Your task to perform on an android device: install app "Life360: Find Family & Friends" Image 0: 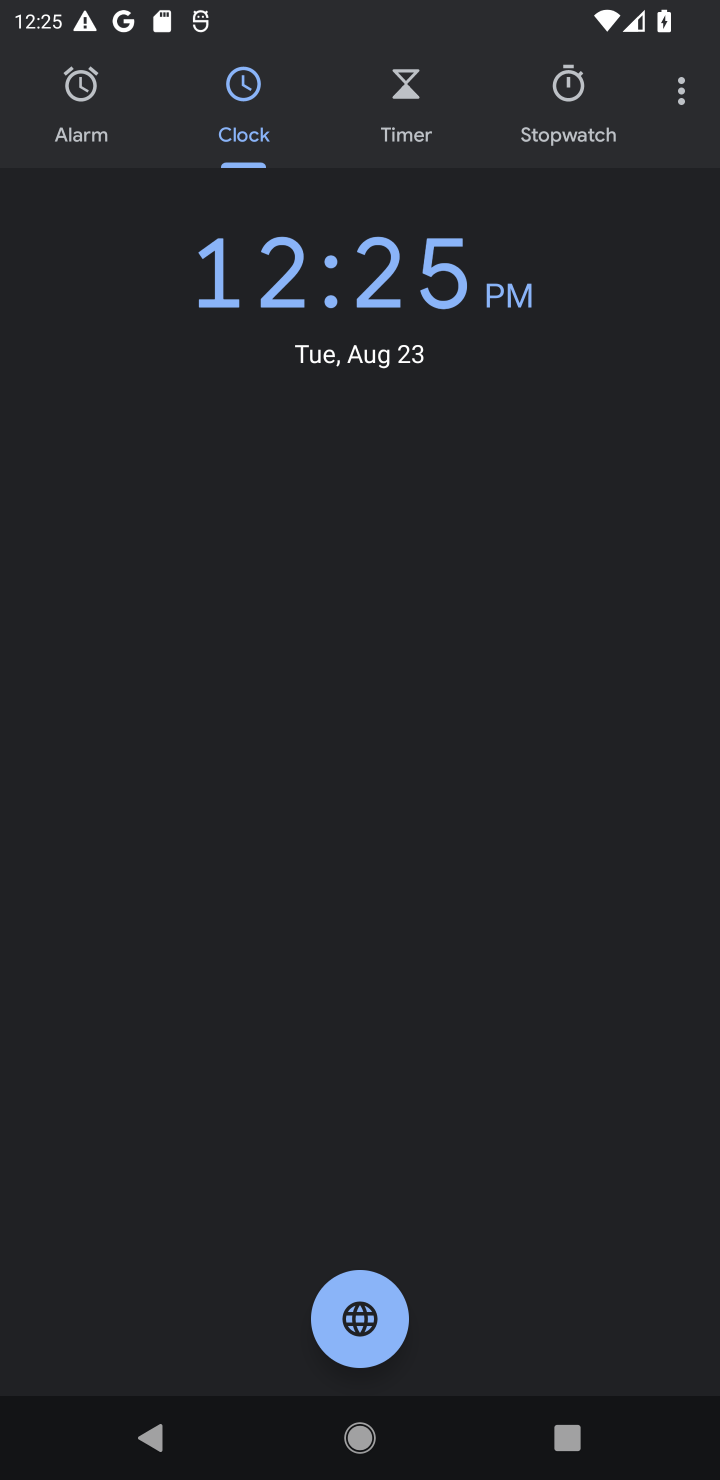
Step 0: press home button
Your task to perform on an android device: install app "Life360: Find Family & Friends" Image 1: 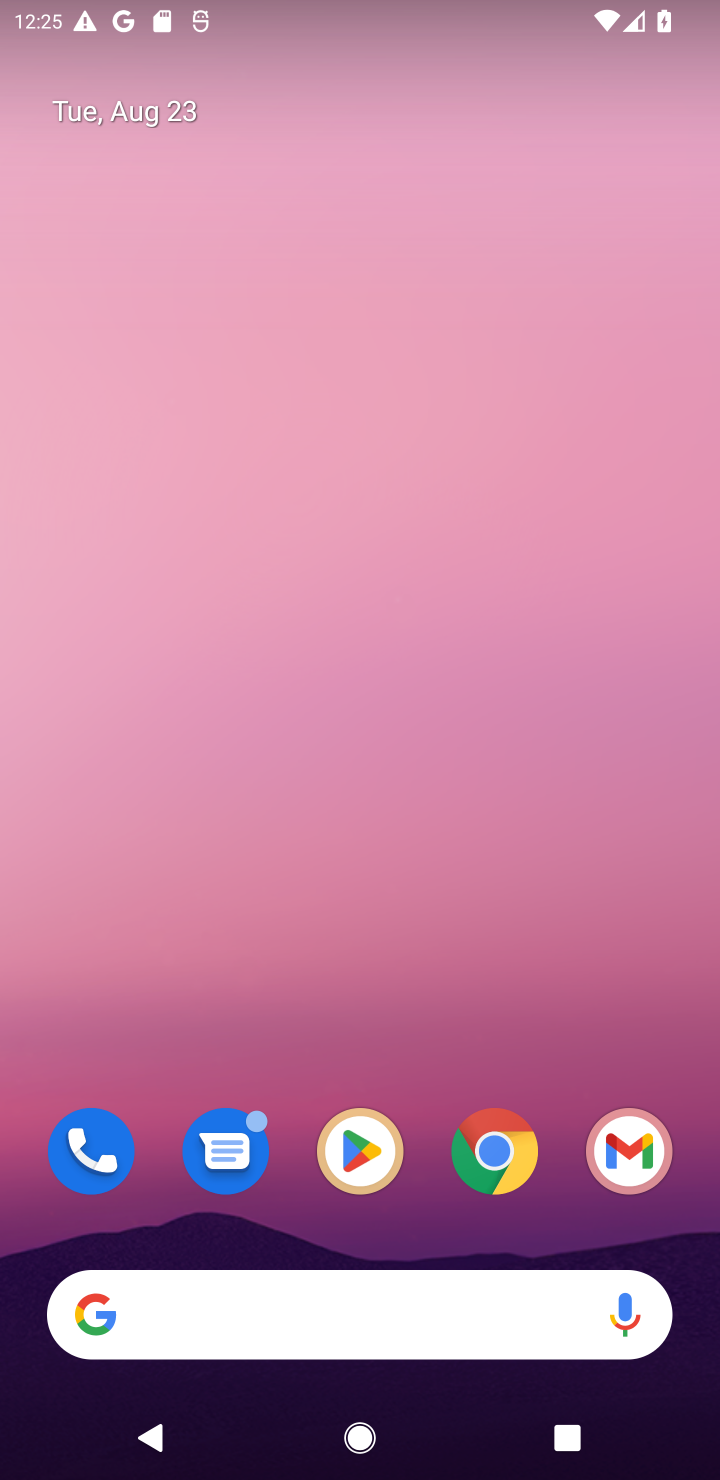
Step 1: click (342, 1128)
Your task to perform on an android device: install app "Life360: Find Family & Friends" Image 2: 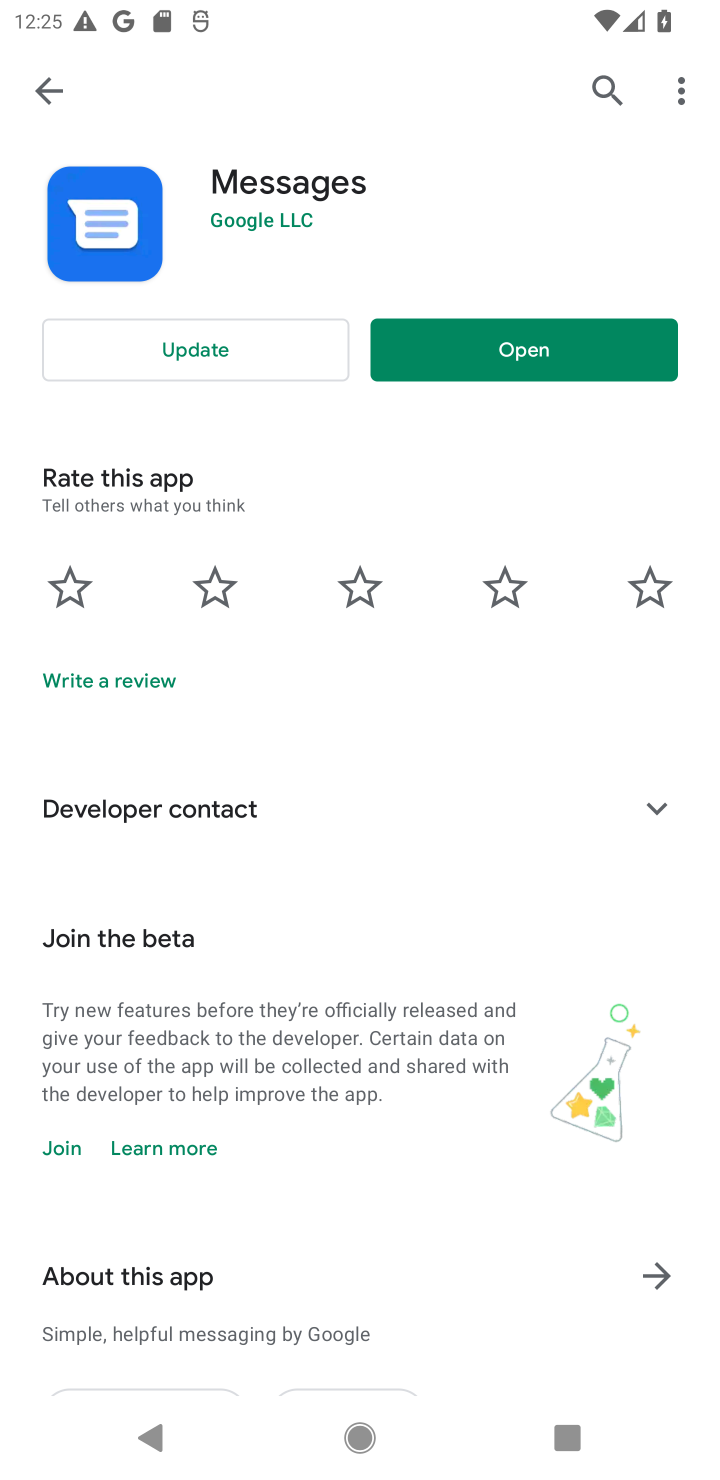
Step 2: click (634, 87)
Your task to perform on an android device: install app "Life360: Find Family & Friends" Image 3: 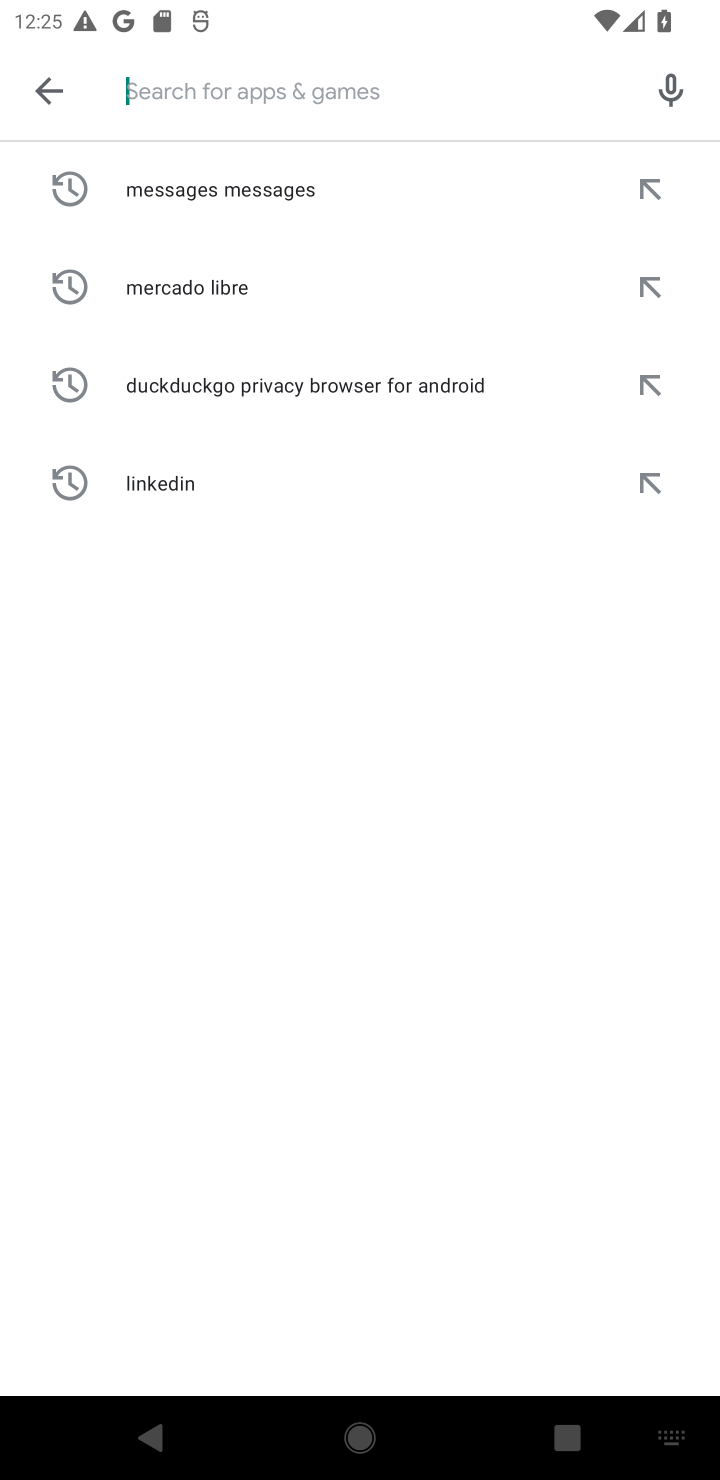
Step 3: type "Life360: Find Family & Friends"
Your task to perform on an android device: install app "Life360: Find Family & Friends" Image 4: 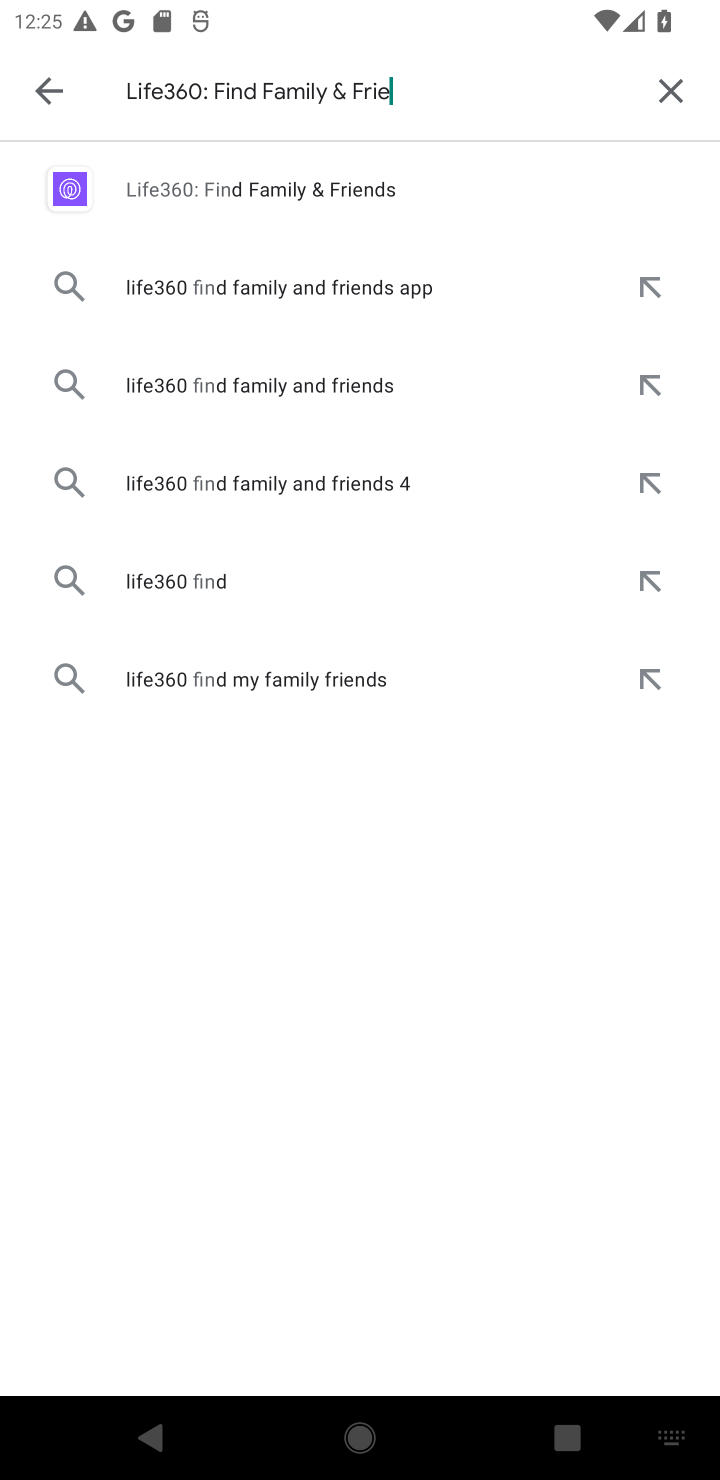
Step 4: type ""
Your task to perform on an android device: install app "Life360: Find Family & Friends" Image 5: 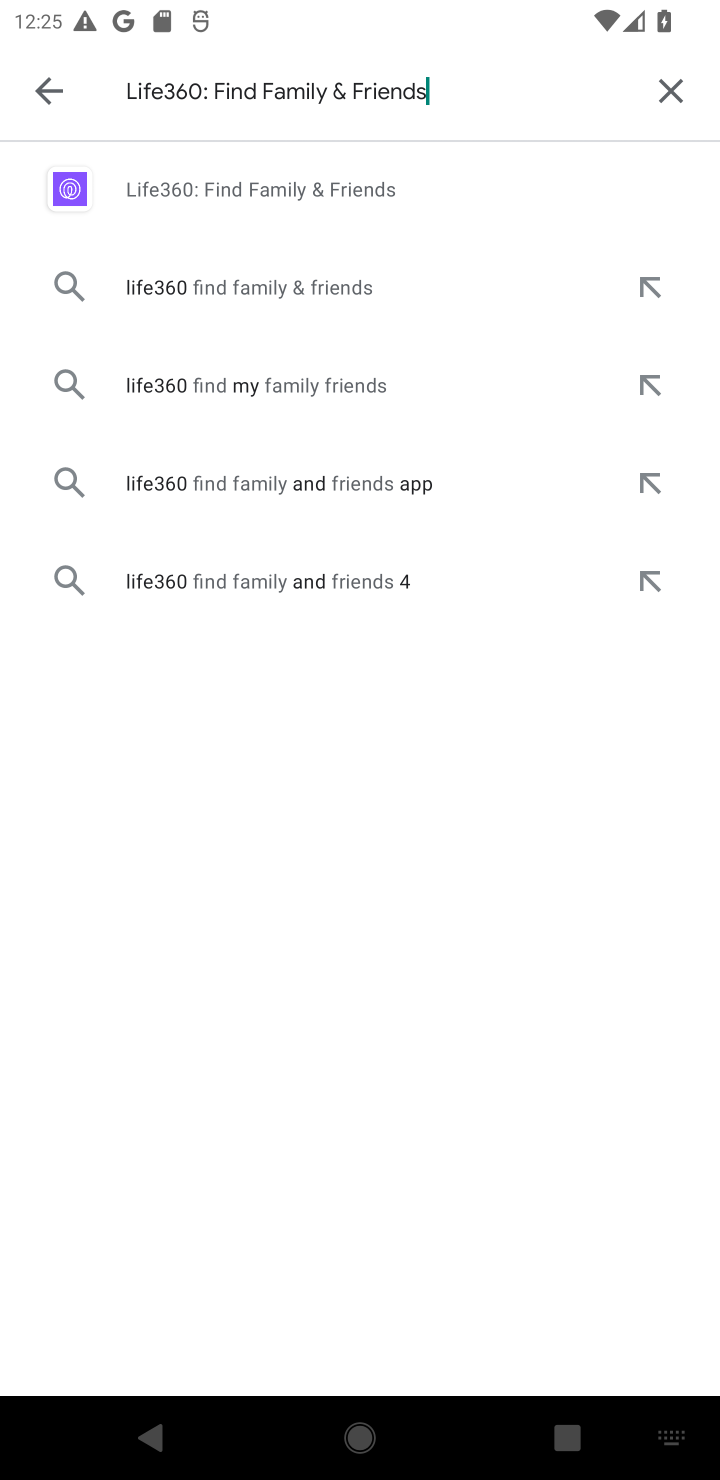
Step 5: click (188, 204)
Your task to perform on an android device: install app "Life360: Find Family & Friends" Image 6: 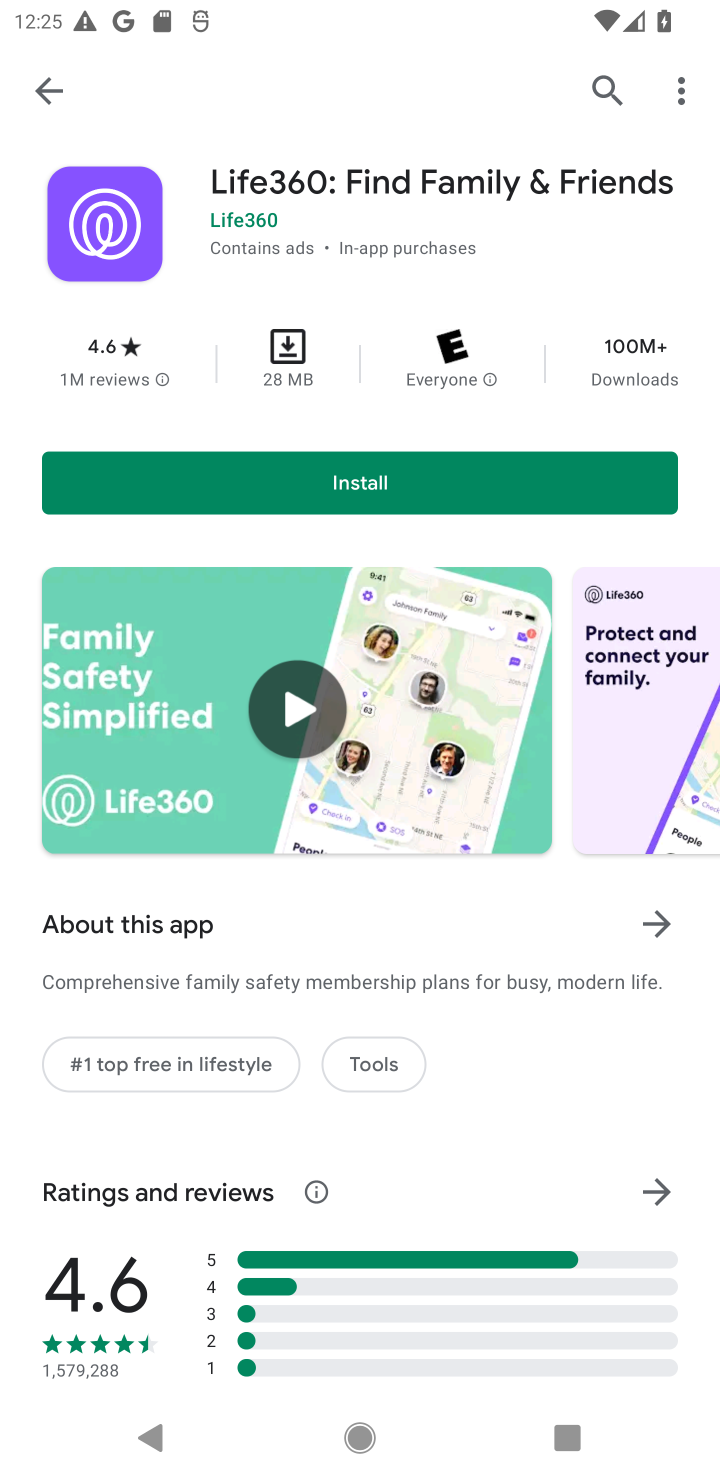
Step 6: click (272, 464)
Your task to perform on an android device: install app "Life360: Find Family & Friends" Image 7: 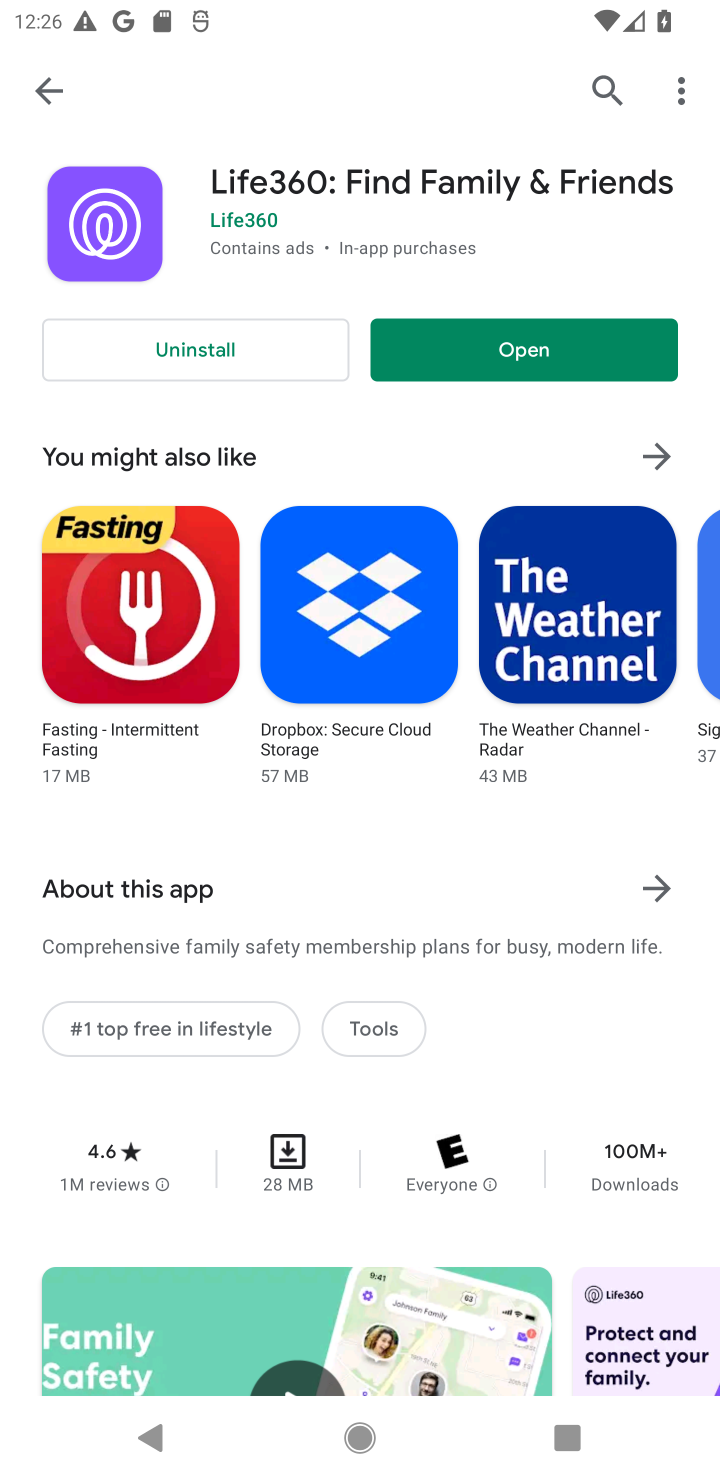
Step 7: task complete